Your task to perform on an android device: turn on data saver in the chrome app Image 0: 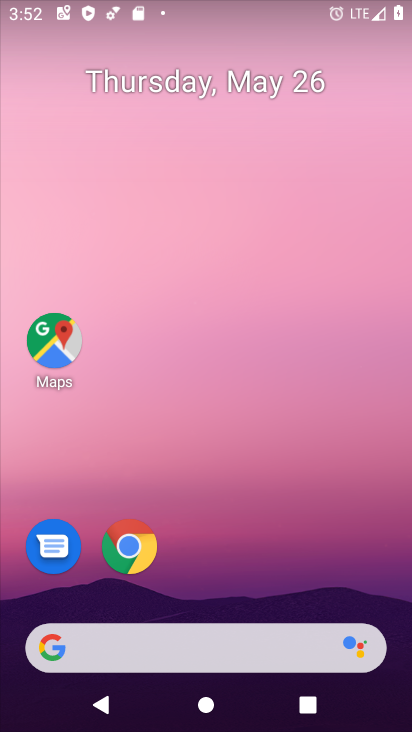
Step 0: click (134, 543)
Your task to perform on an android device: turn on data saver in the chrome app Image 1: 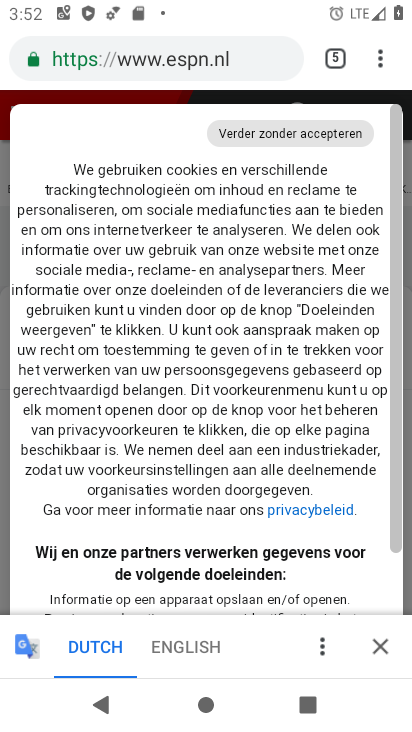
Step 1: drag from (386, 61) to (178, 566)
Your task to perform on an android device: turn on data saver in the chrome app Image 2: 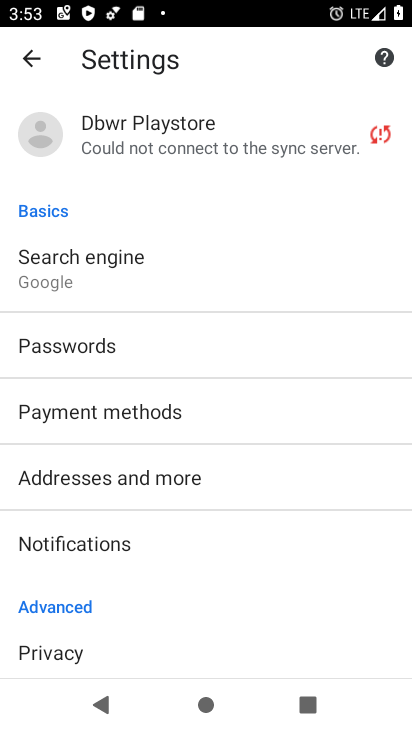
Step 2: drag from (165, 644) to (237, 168)
Your task to perform on an android device: turn on data saver in the chrome app Image 3: 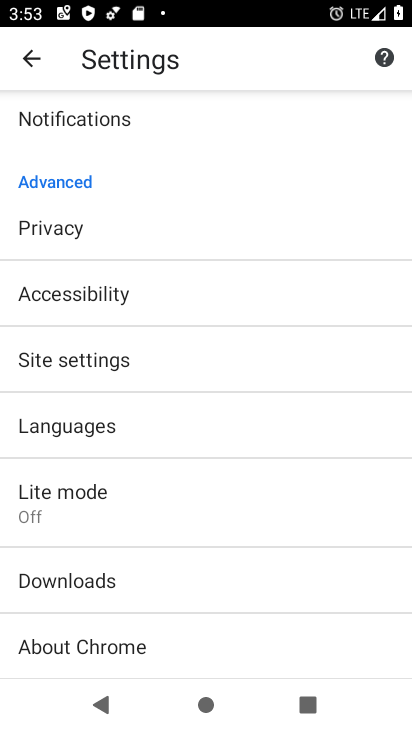
Step 3: click (90, 496)
Your task to perform on an android device: turn on data saver in the chrome app Image 4: 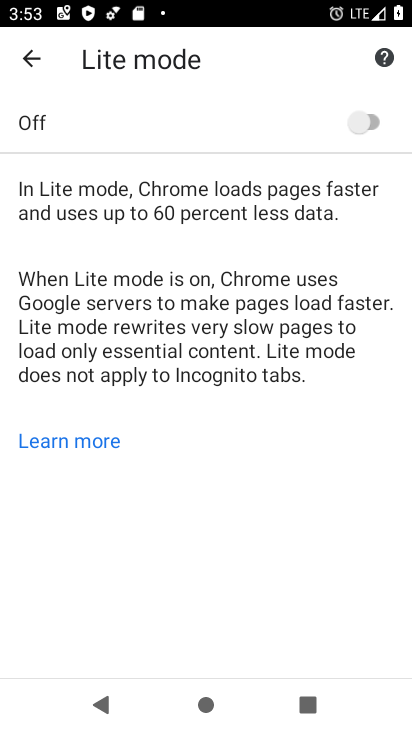
Step 4: click (348, 119)
Your task to perform on an android device: turn on data saver in the chrome app Image 5: 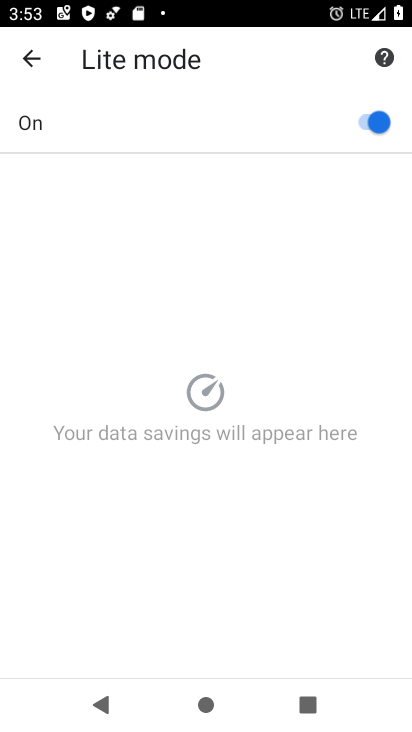
Step 5: task complete